Your task to perform on an android device: empty trash in google photos Image 0: 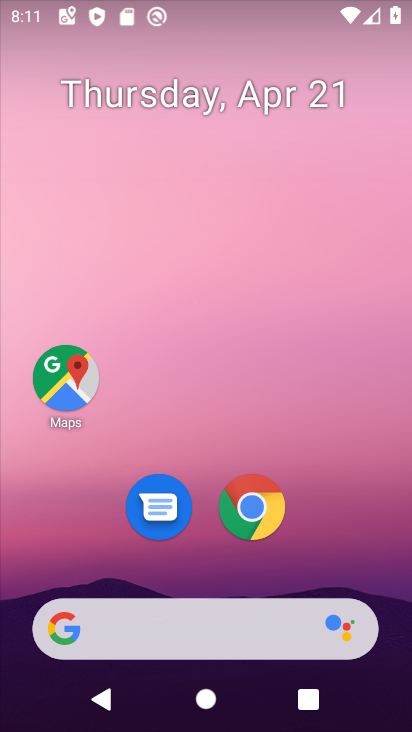
Step 0: drag from (383, 533) to (334, 138)
Your task to perform on an android device: empty trash in google photos Image 1: 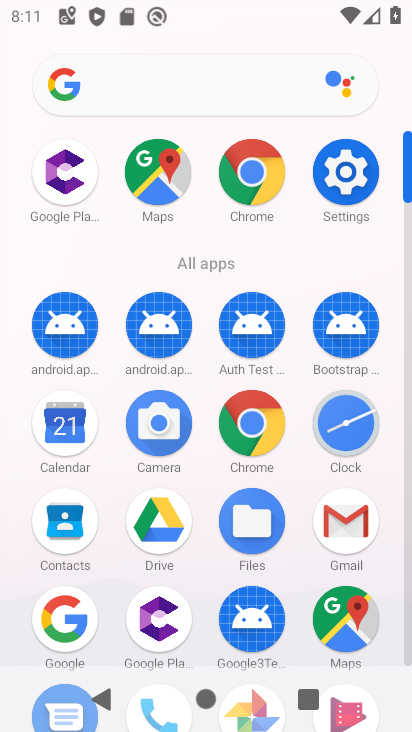
Step 1: drag from (197, 551) to (210, 326)
Your task to perform on an android device: empty trash in google photos Image 2: 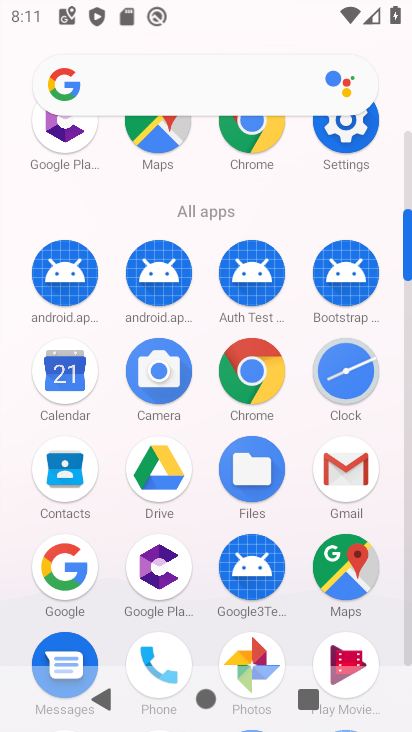
Step 2: click (241, 649)
Your task to perform on an android device: empty trash in google photos Image 3: 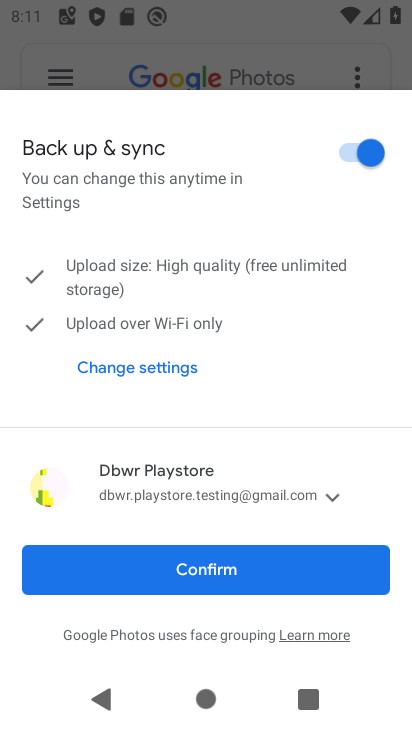
Step 3: click (335, 573)
Your task to perform on an android device: empty trash in google photos Image 4: 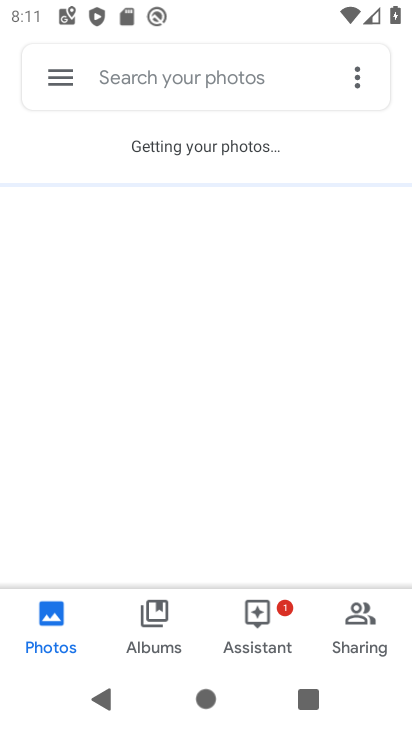
Step 4: click (59, 84)
Your task to perform on an android device: empty trash in google photos Image 5: 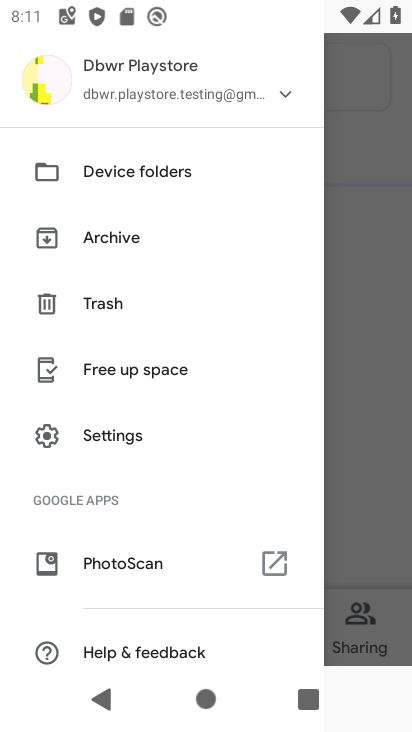
Step 5: click (139, 299)
Your task to perform on an android device: empty trash in google photos Image 6: 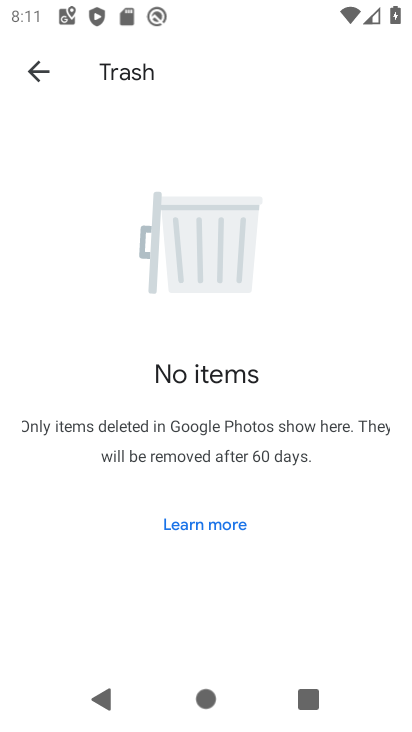
Step 6: task complete